Your task to perform on an android device: delete browsing data in the chrome app Image 0: 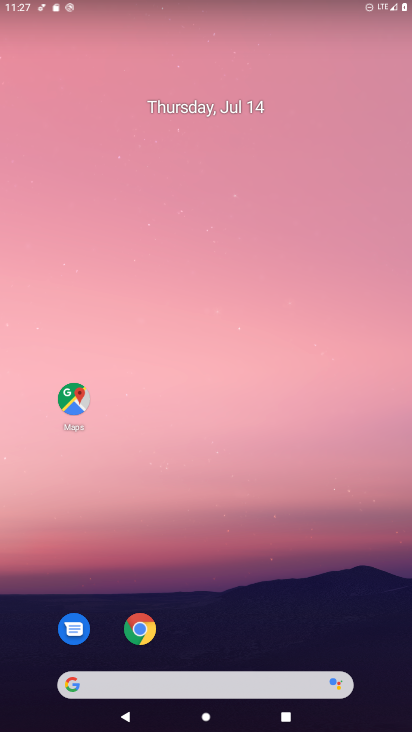
Step 0: drag from (216, 610) to (291, 165)
Your task to perform on an android device: delete browsing data in the chrome app Image 1: 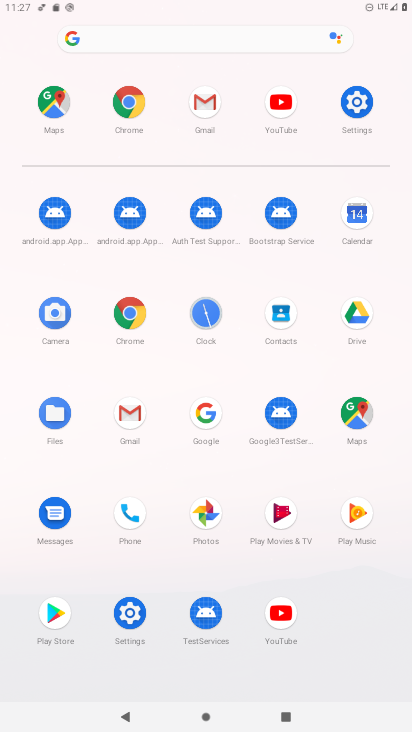
Step 1: click (136, 328)
Your task to perform on an android device: delete browsing data in the chrome app Image 2: 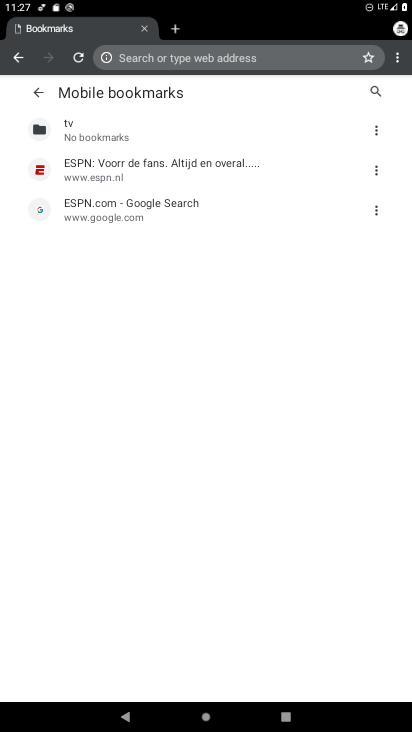
Step 2: click (403, 64)
Your task to perform on an android device: delete browsing data in the chrome app Image 3: 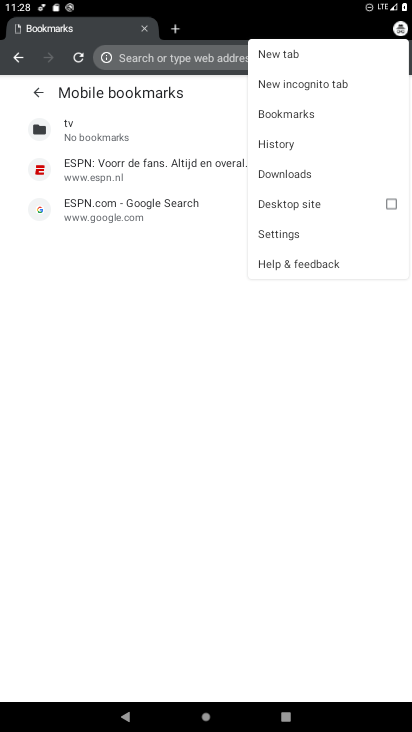
Step 3: click (286, 229)
Your task to perform on an android device: delete browsing data in the chrome app Image 4: 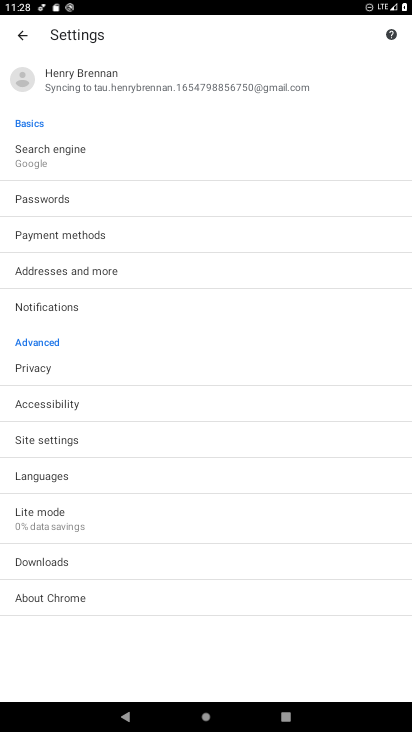
Step 4: click (26, 33)
Your task to perform on an android device: delete browsing data in the chrome app Image 5: 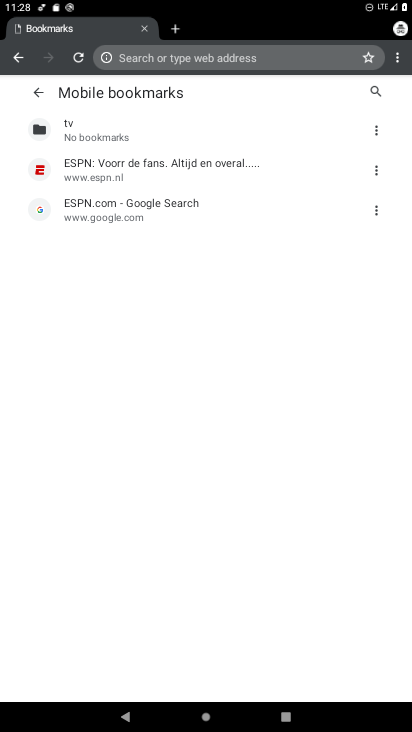
Step 5: click (402, 62)
Your task to perform on an android device: delete browsing data in the chrome app Image 6: 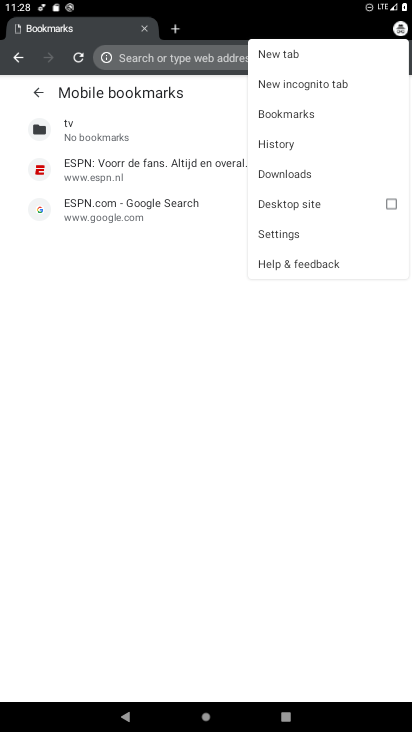
Step 6: click (271, 140)
Your task to perform on an android device: delete browsing data in the chrome app Image 7: 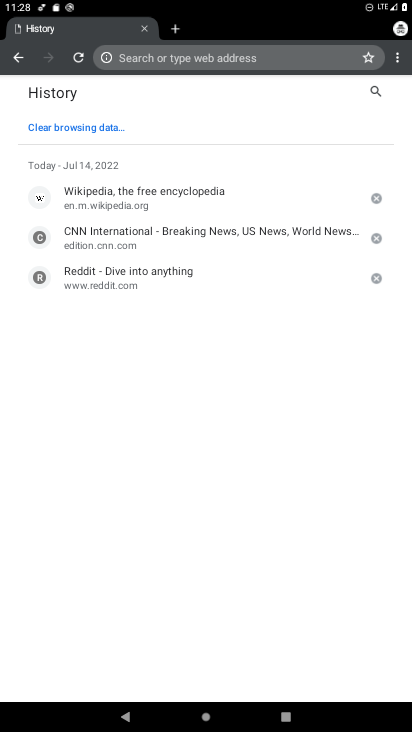
Step 7: click (95, 137)
Your task to perform on an android device: delete browsing data in the chrome app Image 8: 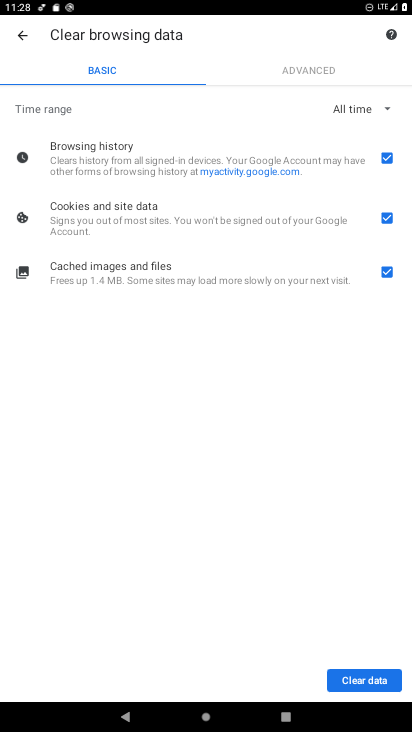
Step 8: click (346, 683)
Your task to perform on an android device: delete browsing data in the chrome app Image 9: 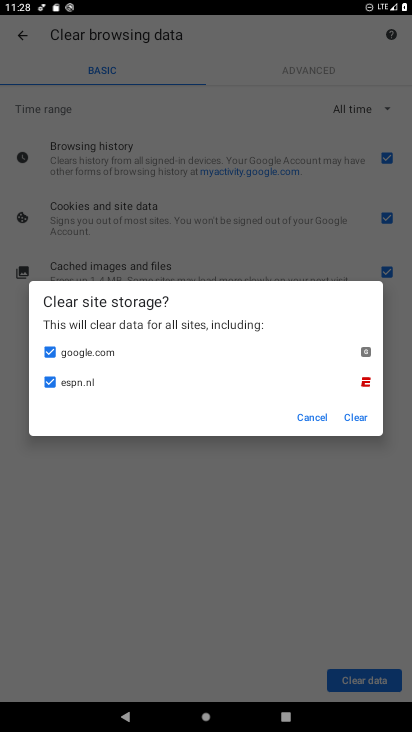
Step 9: click (362, 422)
Your task to perform on an android device: delete browsing data in the chrome app Image 10: 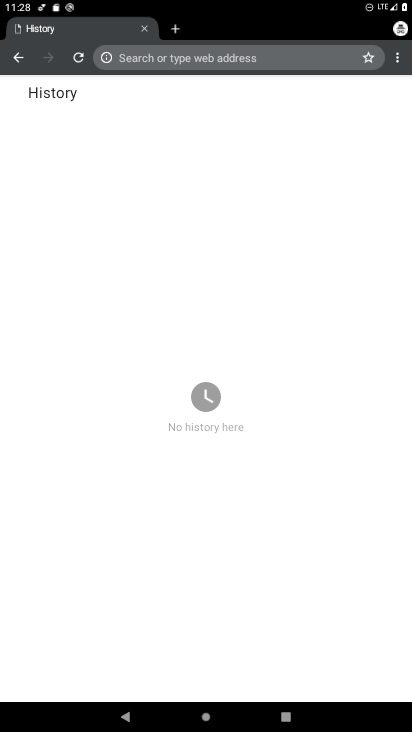
Step 10: task complete